Your task to perform on an android device: Turn off the flashlight Image 0: 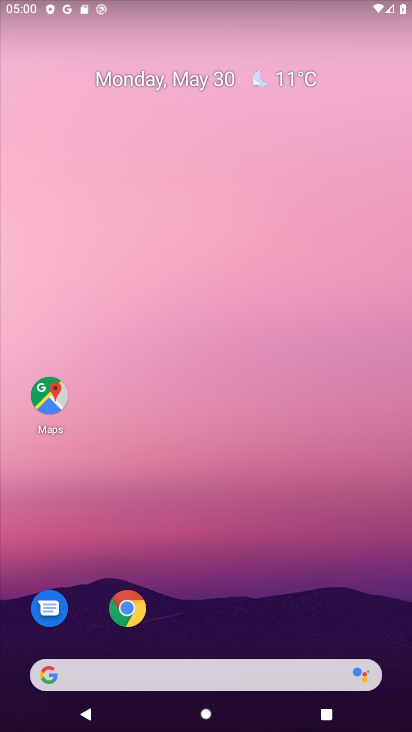
Step 0: drag from (298, 3) to (298, 449)
Your task to perform on an android device: Turn off the flashlight Image 1: 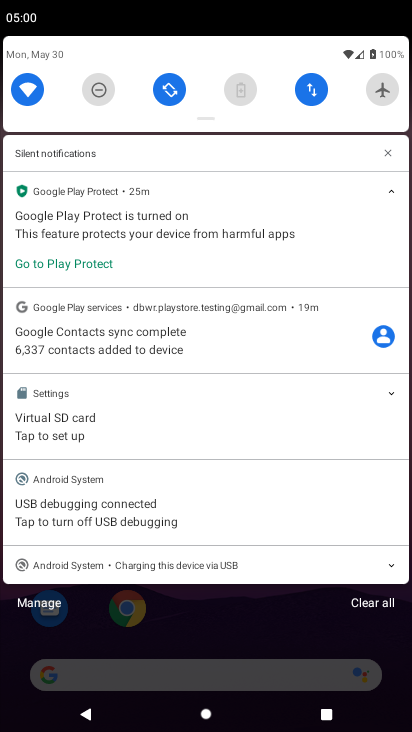
Step 1: drag from (289, 92) to (299, 474)
Your task to perform on an android device: Turn off the flashlight Image 2: 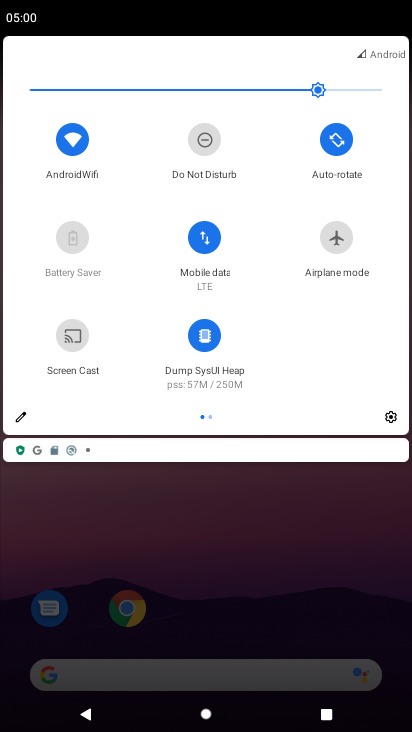
Step 2: drag from (343, 312) to (0, 304)
Your task to perform on an android device: Turn off the flashlight Image 3: 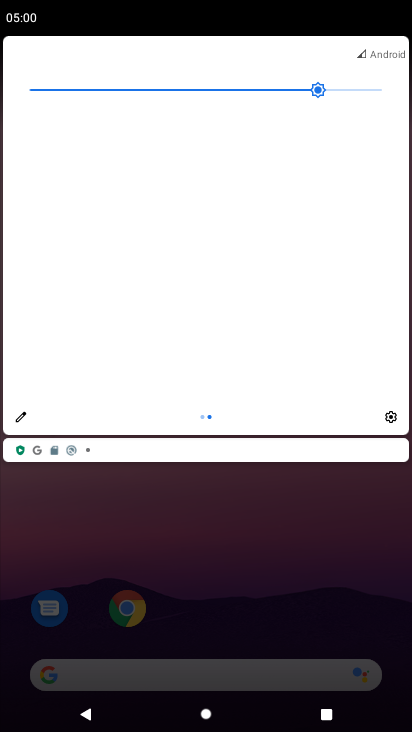
Step 3: click (18, 420)
Your task to perform on an android device: Turn off the flashlight Image 4: 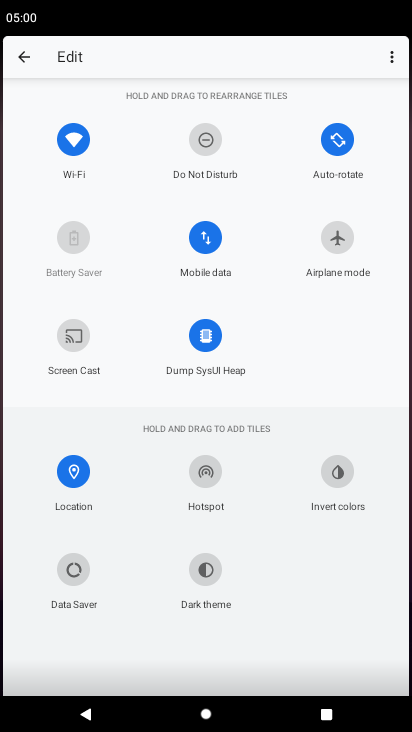
Step 4: task complete